Your task to perform on an android device: Show me the alarms in the clock app Image 0: 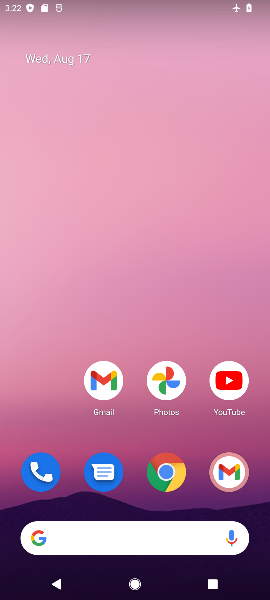
Step 0: drag from (133, 428) to (128, 89)
Your task to perform on an android device: Show me the alarms in the clock app Image 1: 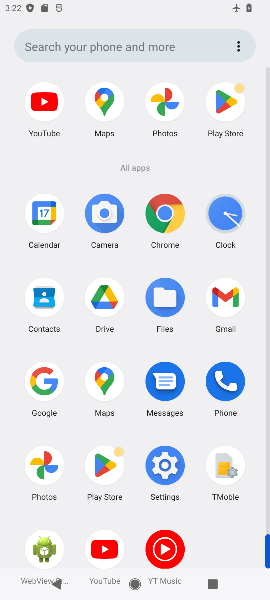
Step 1: click (228, 210)
Your task to perform on an android device: Show me the alarms in the clock app Image 2: 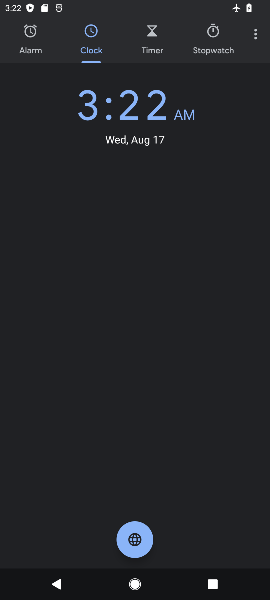
Step 2: click (39, 41)
Your task to perform on an android device: Show me the alarms in the clock app Image 3: 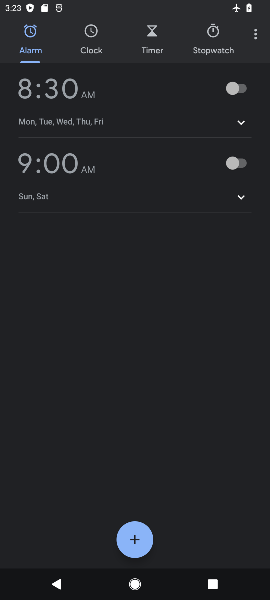
Step 3: task complete